Your task to perform on an android device: install app "Paramount+ | Peak Streaming" Image 0: 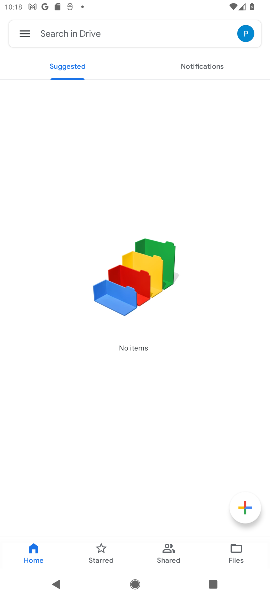
Step 0: press home button
Your task to perform on an android device: install app "Paramount+ | Peak Streaming" Image 1: 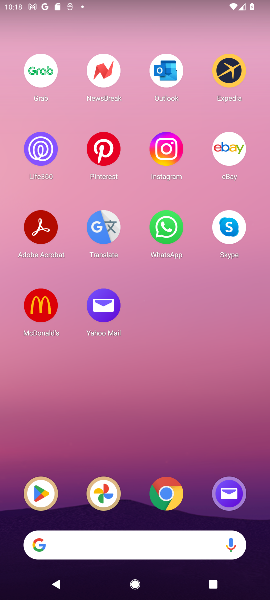
Step 1: click (36, 500)
Your task to perform on an android device: install app "Paramount+ | Peak Streaming" Image 2: 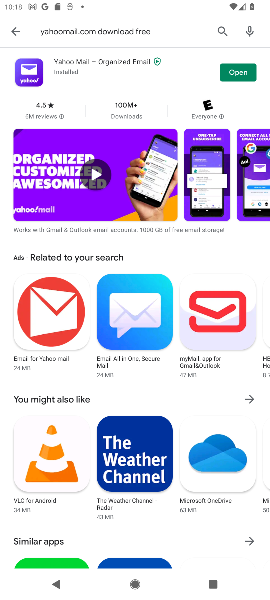
Step 2: click (226, 33)
Your task to perform on an android device: install app "Paramount+ | Peak Streaming" Image 3: 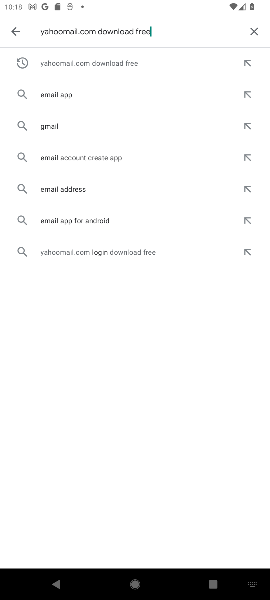
Step 3: click (253, 33)
Your task to perform on an android device: install app "Paramount+ | Peak Streaming" Image 4: 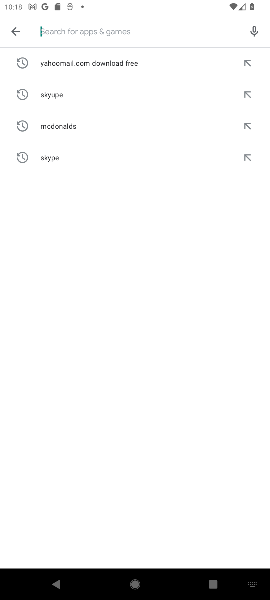
Step 4: type "paramount"
Your task to perform on an android device: install app "Paramount+ | Peak Streaming" Image 5: 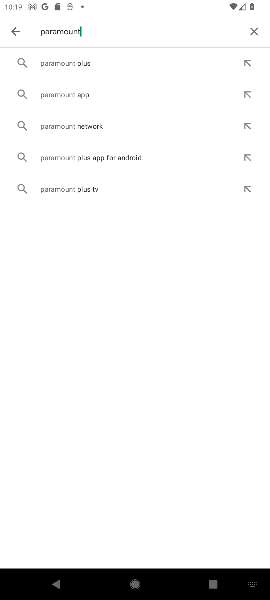
Step 5: click (119, 58)
Your task to perform on an android device: install app "Paramount+ | Peak Streaming" Image 6: 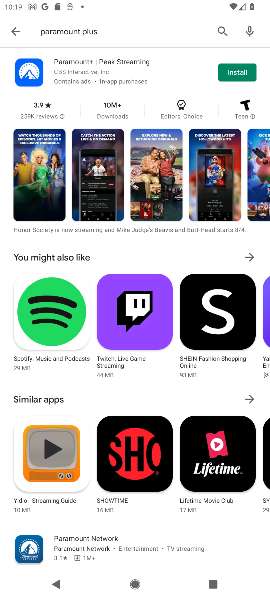
Step 6: click (227, 71)
Your task to perform on an android device: install app "Paramount+ | Peak Streaming" Image 7: 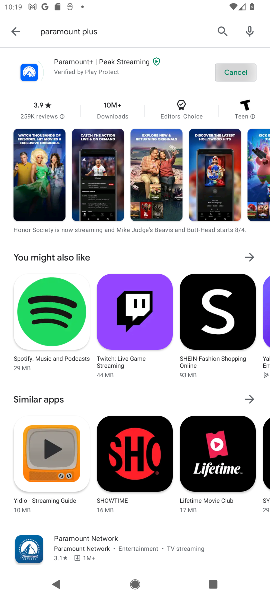
Step 7: task complete